Your task to perform on an android device: turn on priority inbox in the gmail app Image 0: 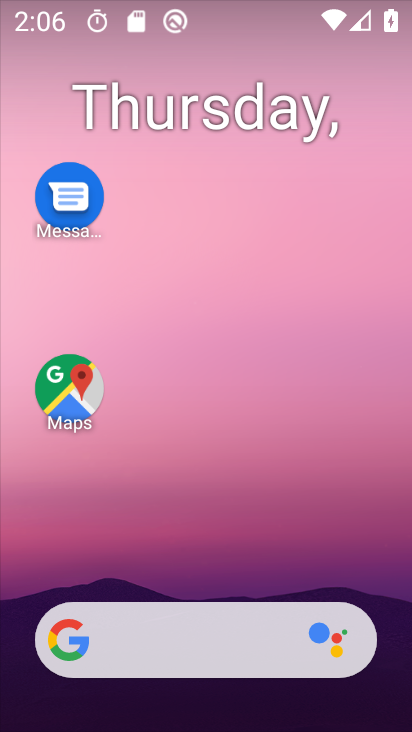
Step 0: drag from (161, 581) to (126, 175)
Your task to perform on an android device: turn on priority inbox in the gmail app Image 1: 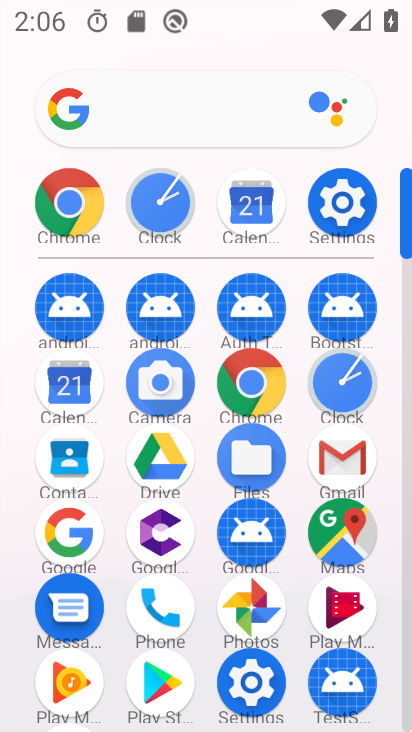
Step 1: click (345, 200)
Your task to perform on an android device: turn on priority inbox in the gmail app Image 2: 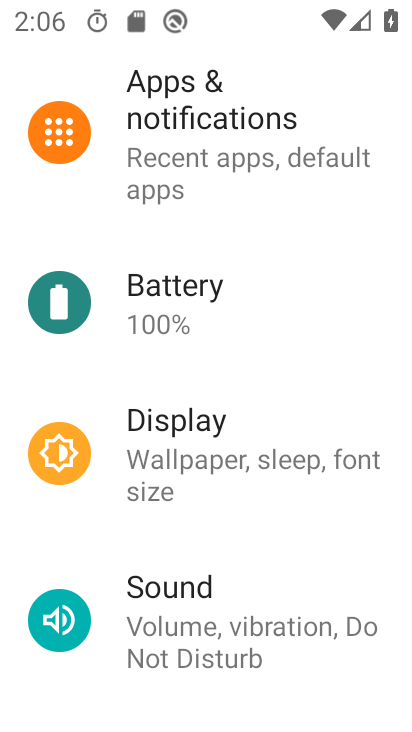
Step 2: drag from (219, 235) to (217, 396)
Your task to perform on an android device: turn on priority inbox in the gmail app Image 3: 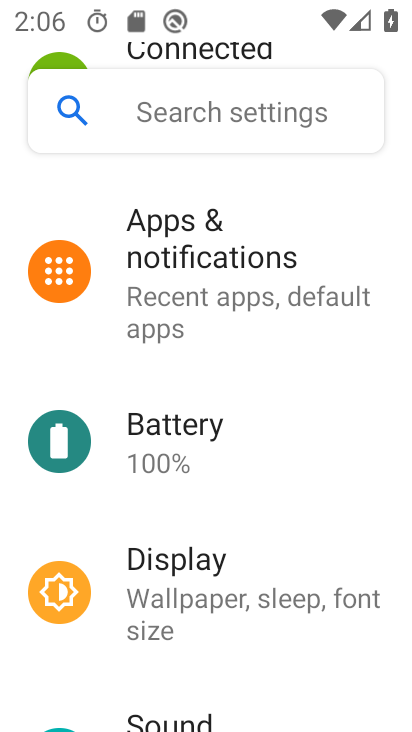
Step 3: click (228, 382)
Your task to perform on an android device: turn on priority inbox in the gmail app Image 4: 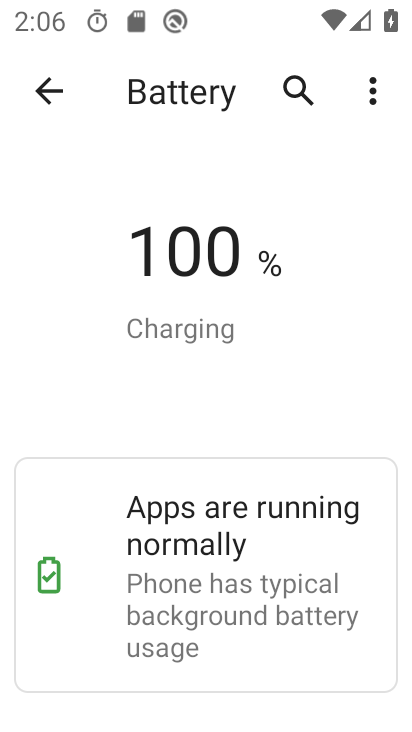
Step 4: click (36, 91)
Your task to perform on an android device: turn on priority inbox in the gmail app Image 5: 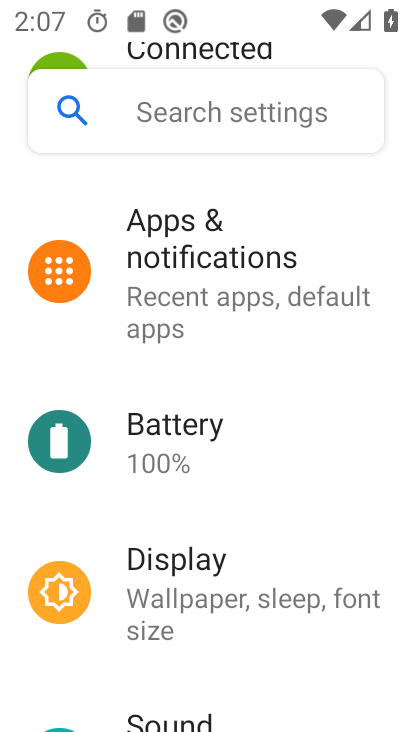
Step 5: drag from (179, 363) to (170, 599)
Your task to perform on an android device: turn on priority inbox in the gmail app Image 6: 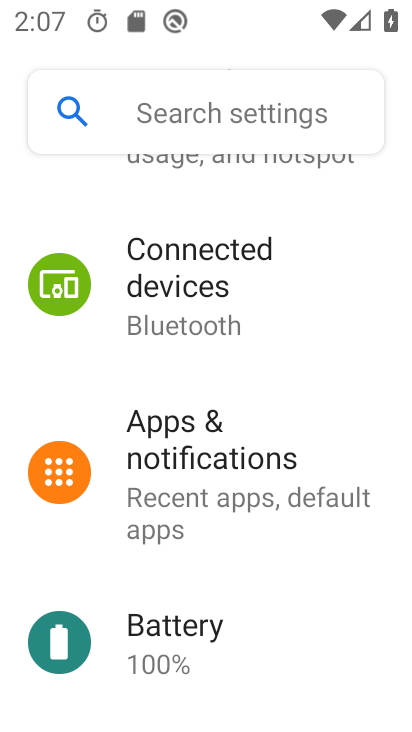
Step 6: drag from (164, 222) to (170, 470)
Your task to perform on an android device: turn on priority inbox in the gmail app Image 7: 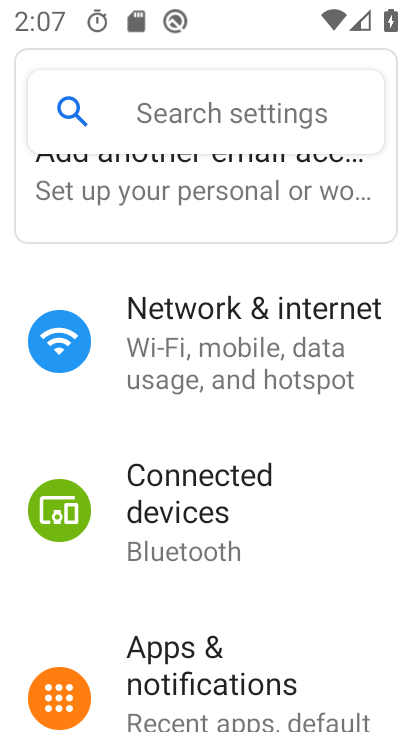
Step 7: press home button
Your task to perform on an android device: turn on priority inbox in the gmail app Image 8: 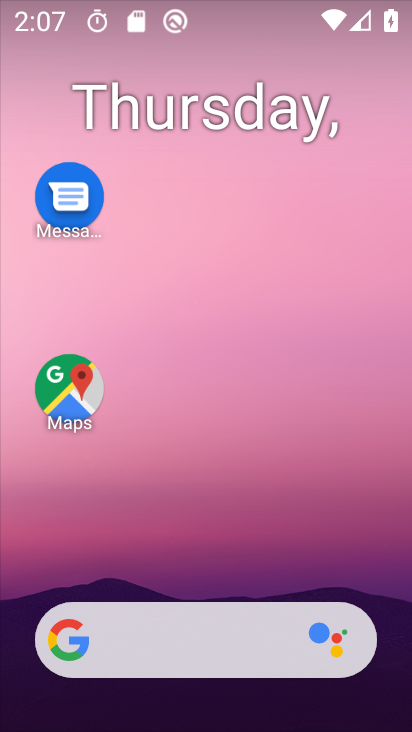
Step 8: drag from (148, 566) to (304, 77)
Your task to perform on an android device: turn on priority inbox in the gmail app Image 9: 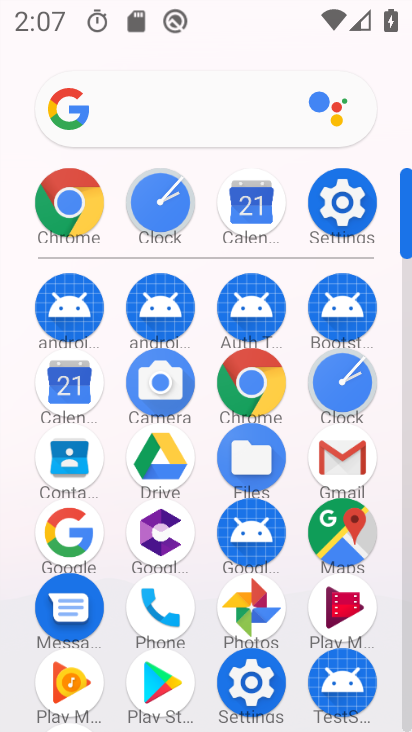
Step 9: click (349, 447)
Your task to perform on an android device: turn on priority inbox in the gmail app Image 10: 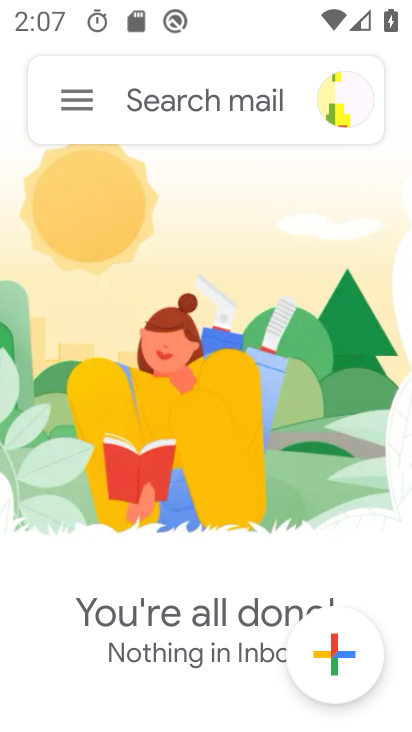
Step 10: click (83, 96)
Your task to perform on an android device: turn on priority inbox in the gmail app Image 11: 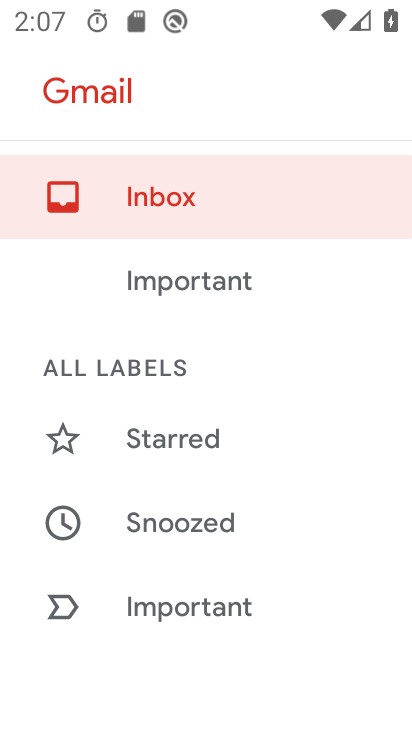
Step 11: drag from (198, 575) to (259, 211)
Your task to perform on an android device: turn on priority inbox in the gmail app Image 12: 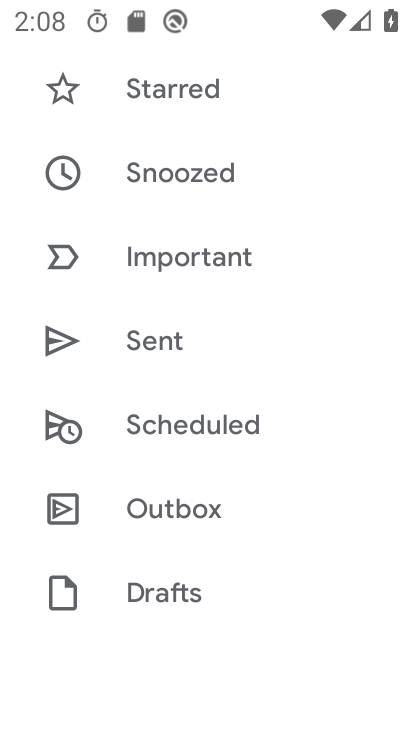
Step 12: drag from (238, 547) to (263, 245)
Your task to perform on an android device: turn on priority inbox in the gmail app Image 13: 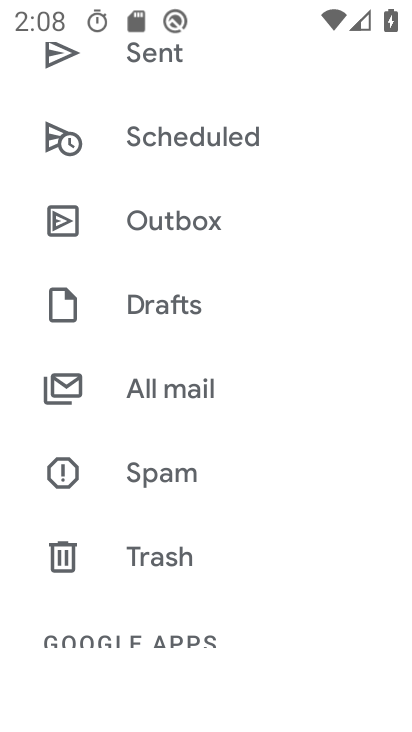
Step 13: click (219, 351)
Your task to perform on an android device: turn on priority inbox in the gmail app Image 14: 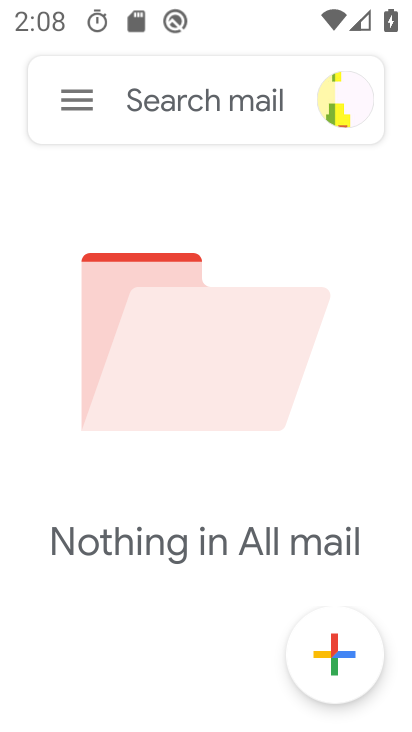
Step 14: click (80, 106)
Your task to perform on an android device: turn on priority inbox in the gmail app Image 15: 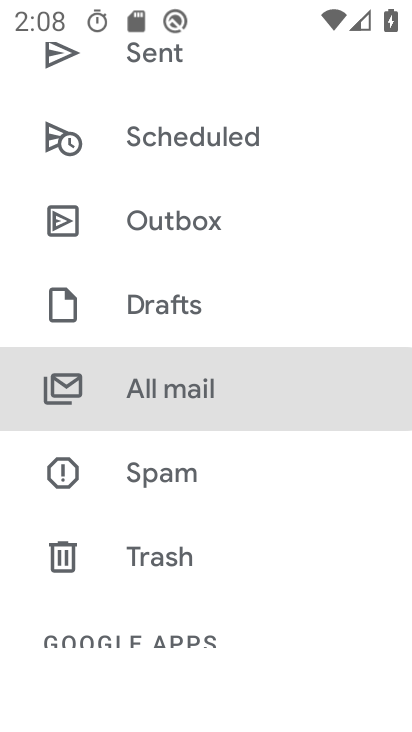
Step 15: drag from (140, 592) to (222, 190)
Your task to perform on an android device: turn on priority inbox in the gmail app Image 16: 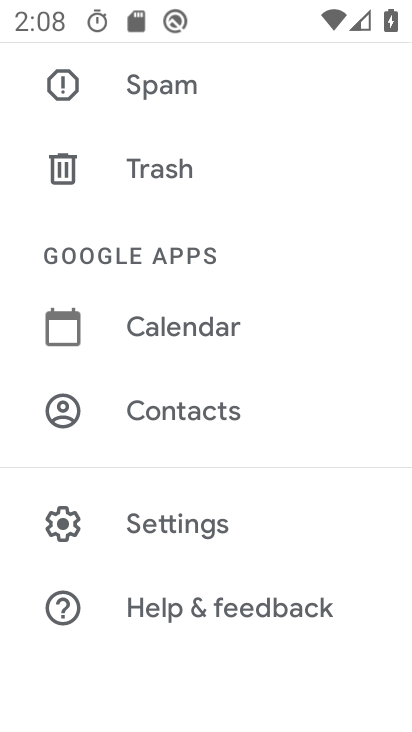
Step 16: click (182, 511)
Your task to perform on an android device: turn on priority inbox in the gmail app Image 17: 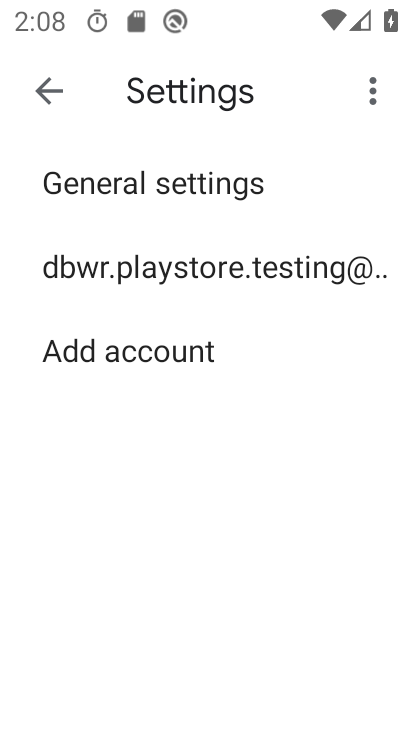
Step 17: click (202, 269)
Your task to perform on an android device: turn on priority inbox in the gmail app Image 18: 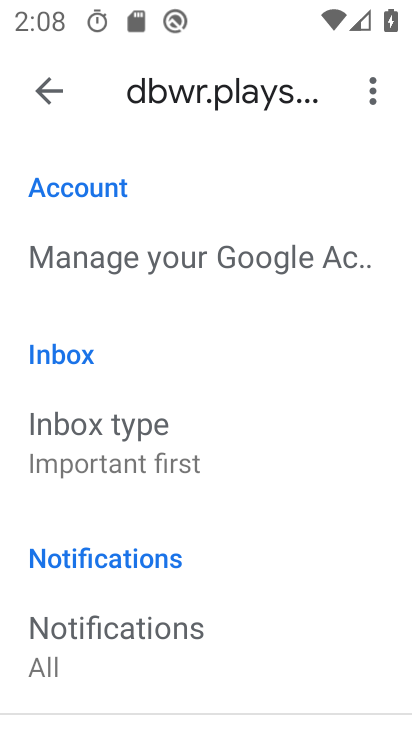
Step 18: drag from (129, 666) to (149, 286)
Your task to perform on an android device: turn on priority inbox in the gmail app Image 19: 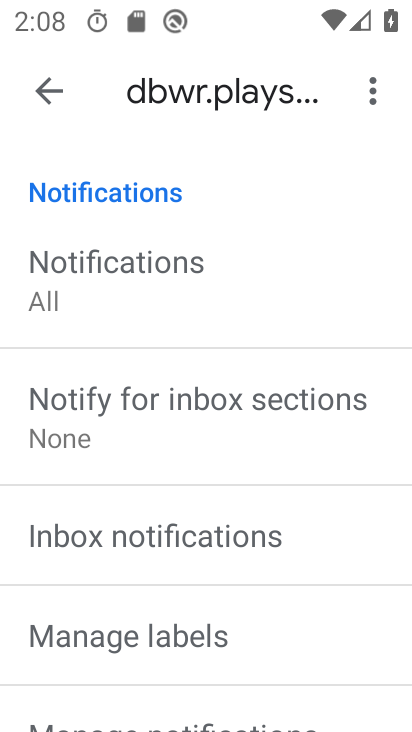
Step 19: drag from (124, 621) to (155, 409)
Your task to perform on an android device: turn on priority inbox in the gmail app Image 20: 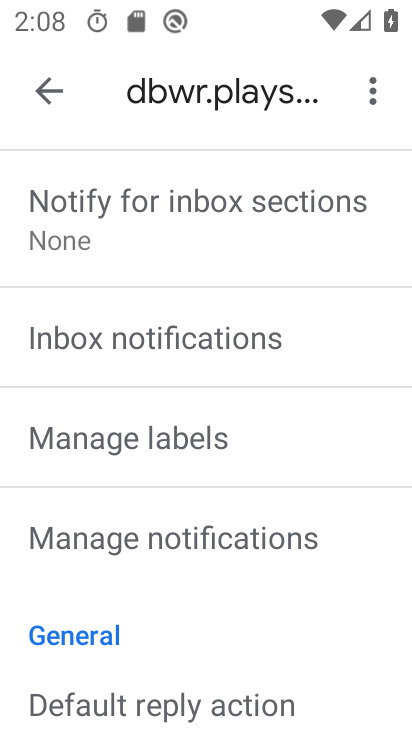
Step 20: drag from (199, 256) to (181, 597)
Your task to perform on an android device: turn on priority inbox in the gmail app Image 21: 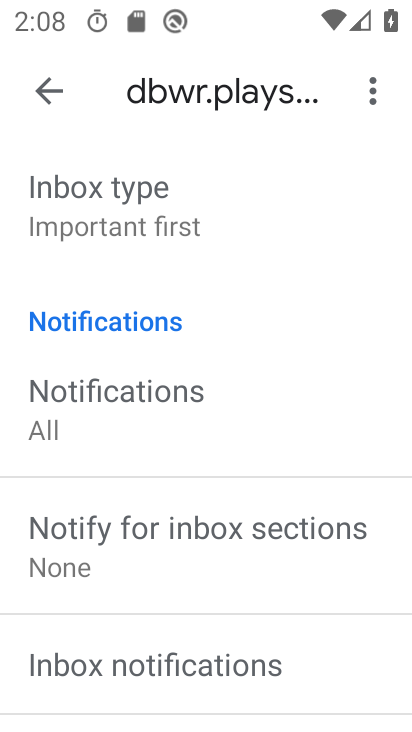
Step 21: drag from (216, 276) to (188, 540)
Your task to perform on an android device: turn on priority inbox in the gmail app Image 22: 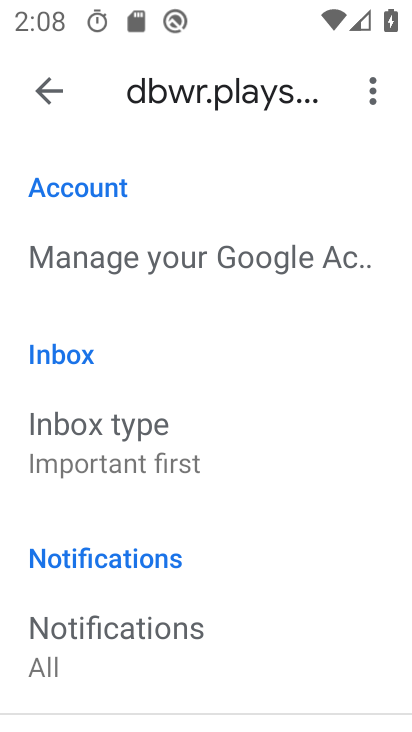
Step 22: drag from (167, 315) to (151, 539)
Your task to perform on an android device: turn on priority inbox in the gmail app Image 23: 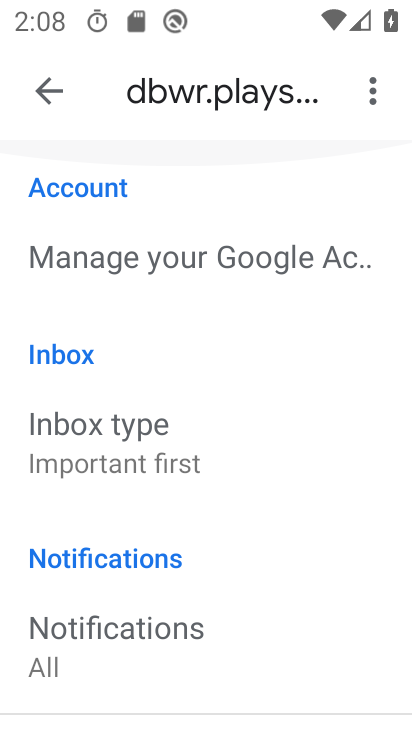
Step 23: drag from (160, 510) to (257, 192)
Your task to perform on an android device: turn on priority inbox in the gmail app Image 24: 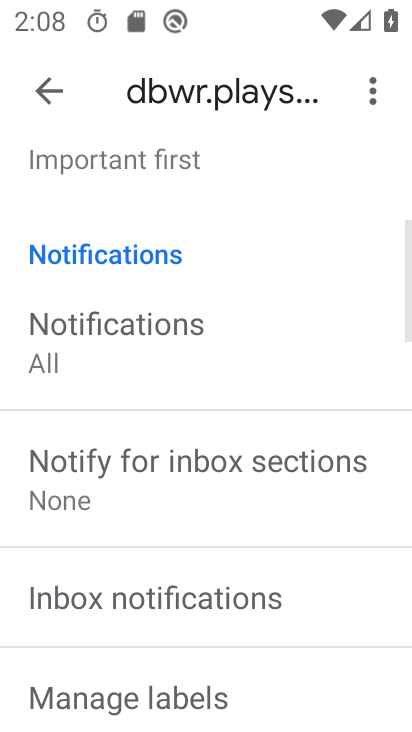
Step 24: drag from (132, 524) to (245, 218)
Your task to perform on an android device: turn on priority inbox in the gmail app Image 25: 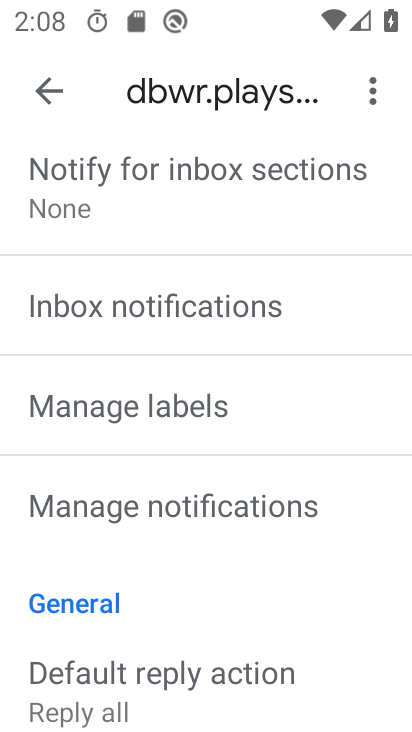
Step 25: drag from (178, 578) to (246, 285)
Your task to perform on an android device: turn on priority inbox in the gmail app Image 26: 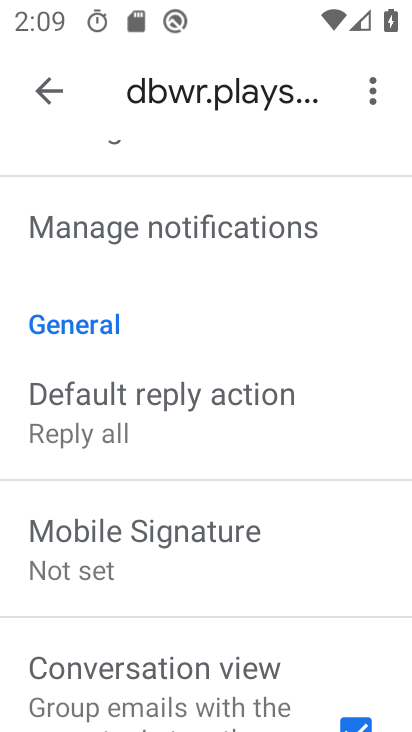
Step 26: drag from (206, 273) to (195, 634)
Your task to perform on an android device: turn on priority inbox in the gmail app Image 27: 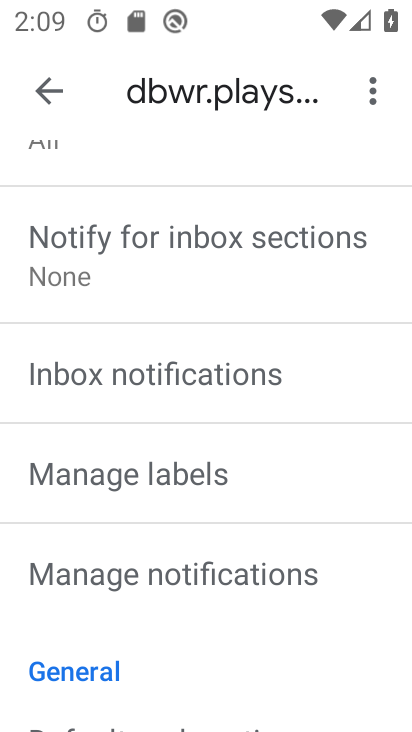
Step 27: drag from (188, 274) to (192, 538)
Your task to perform on an android device: turn on priority inbox in the gmail app Image 28: 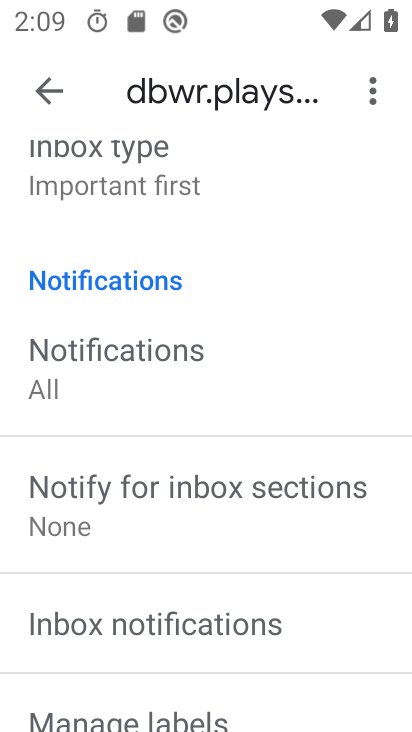
Step 28: drag from (113, 203) to (108, 474)
Your task to perform on an android device: turn on priority inbox in the gmail app Image 29: 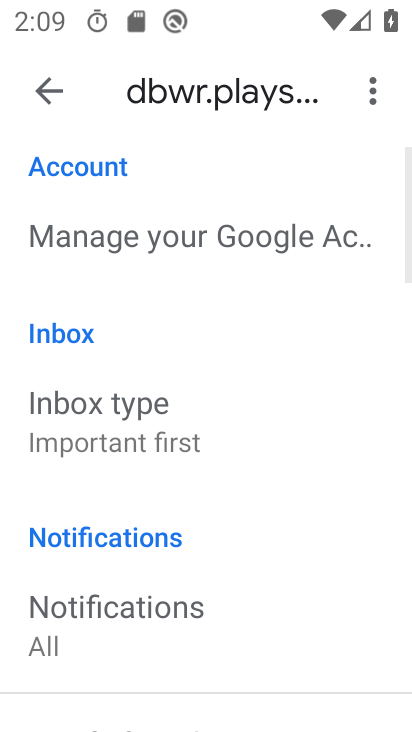
Step 29: click (108, 429)
Your task to perform on an android device: turn on priority inbox in the gmail app Image 30: 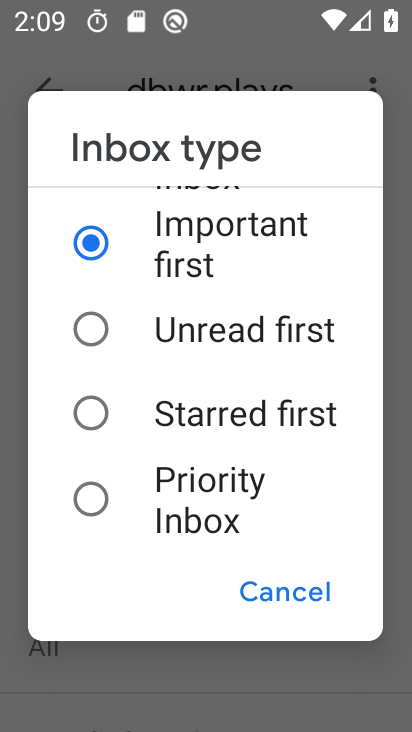
Step 30: click (93, 497)
Your task to perform on an android device: turn on priority inbox in the gmail app Image 31: 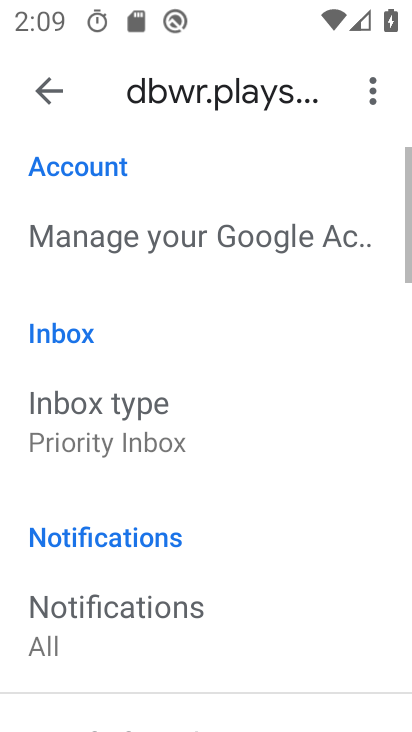
Step 31: task complete